Your task to perform on an android device: clear history in the chrome app Image 0: 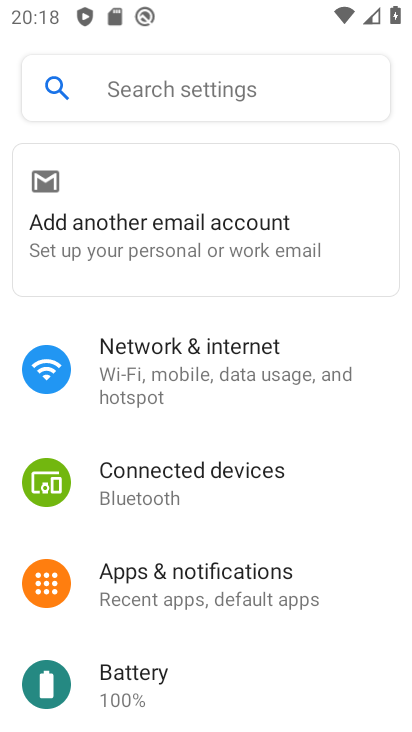
Step 0: click (347, 332)
Your task to perform on an android device: clear history in the chrome app Image 1: 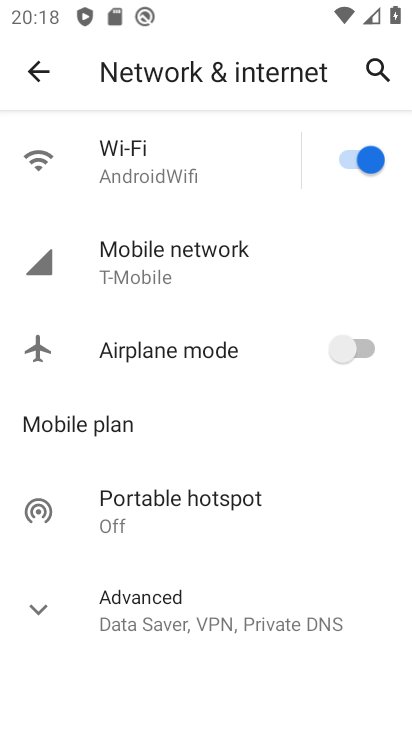
Step 1: drag from (360, 654) to (379, 283)
Your task to perform on an android device: clear history in the chrome app Image 2: 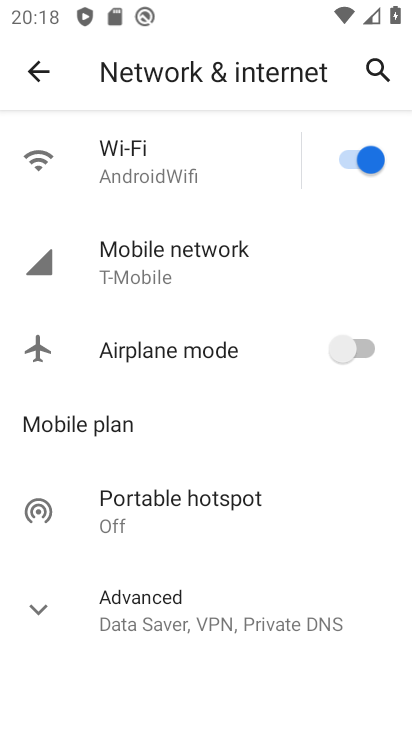
Step 2: click (27, 68)
Your task to perform on an android device: clear history in the chrome app Image 3: 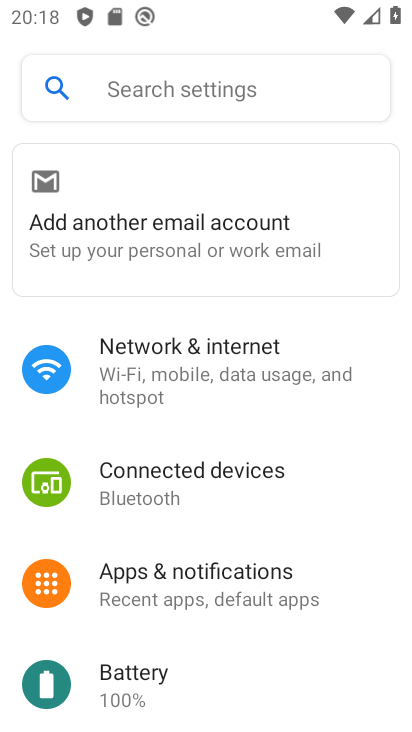
Step 3: drag from (367, 472) to (363, 288)
Your task to perform on an android device: clear history in the chrome app Image 4: 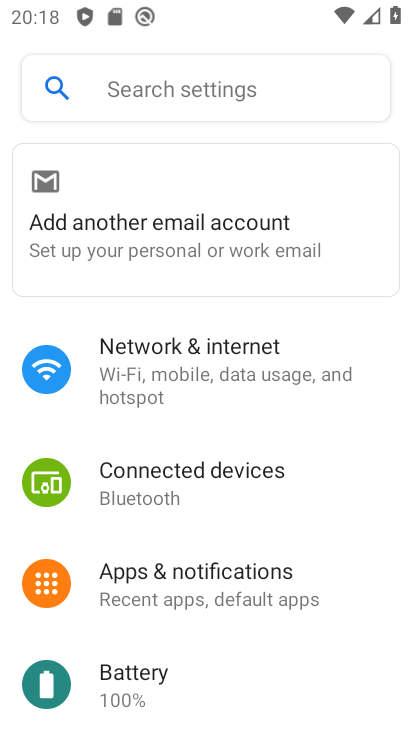
Step 4: press home button
Your task to perform on an android device: clear history in the chrome app Image 5: 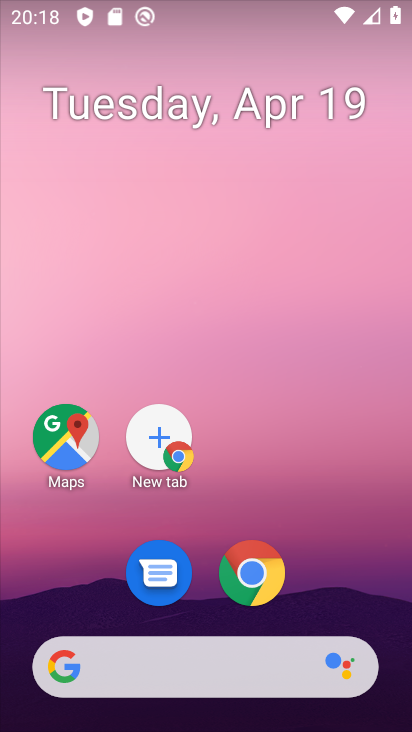
Step 5: click (250, 587)
Your task to perform on an android device: clear history in the chrome app Image 6: 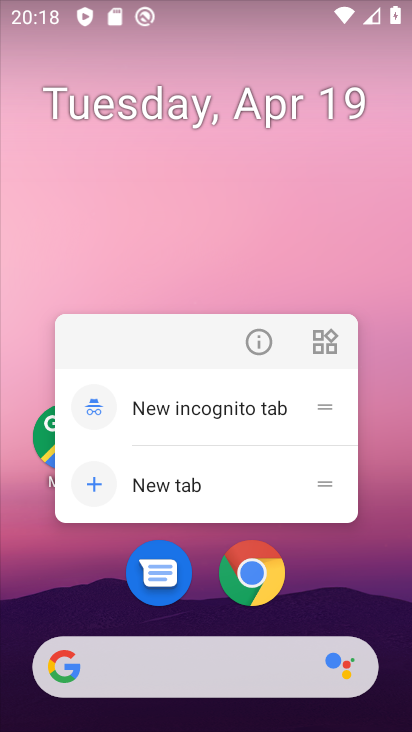
Step 6: click (250, 587)
Your task to perform on an android device: clear history in the chrome app Image 7: 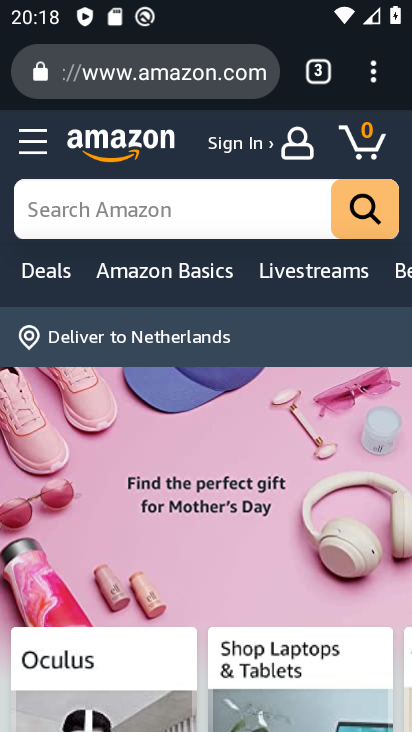
Step 7: click (371, 69)
Your task to perform on an android device: clear history in the chrome app Image 8: 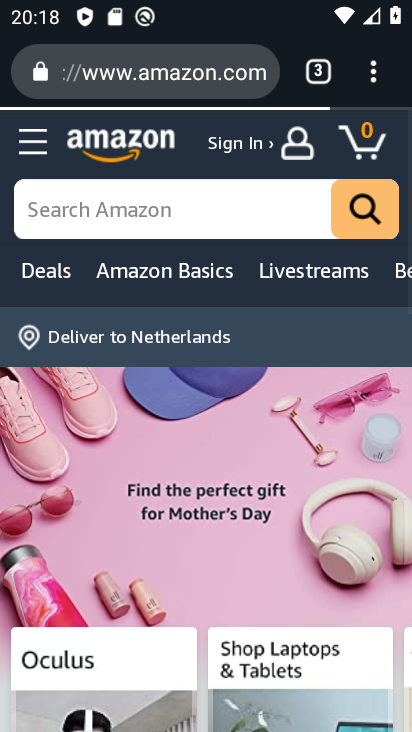
Step 8: click (371, 69)
Your task to perform on an android device: clear history in the chrome app Image 9: 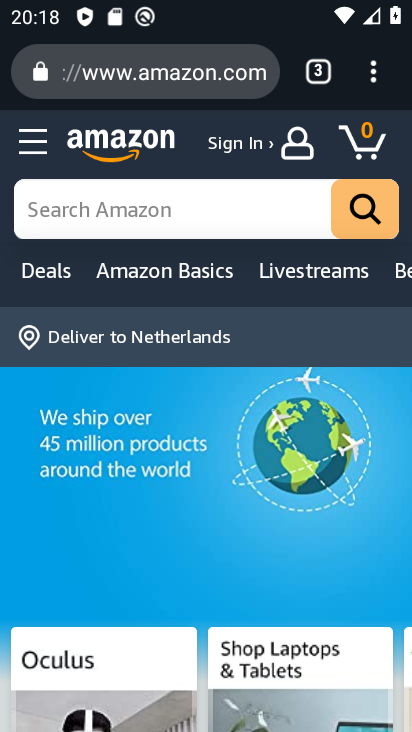
Step 9: click (373, 62)
Your task to perform on an android device: clear history in the chrome app Image 10: 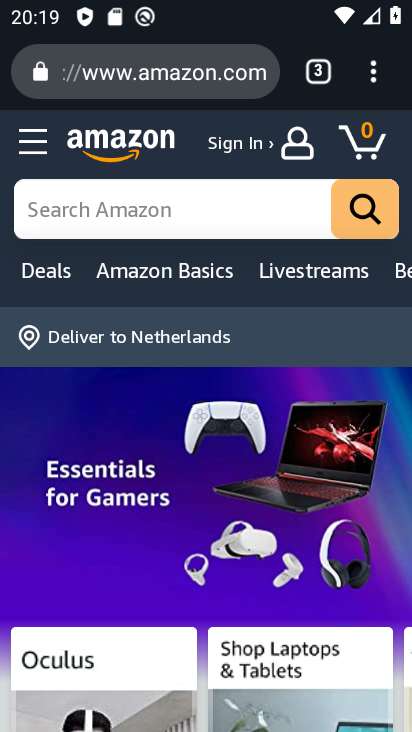
Step 10: click (372, 77)
Your task to perform on an android device: clear history in the chrome app Image 11: 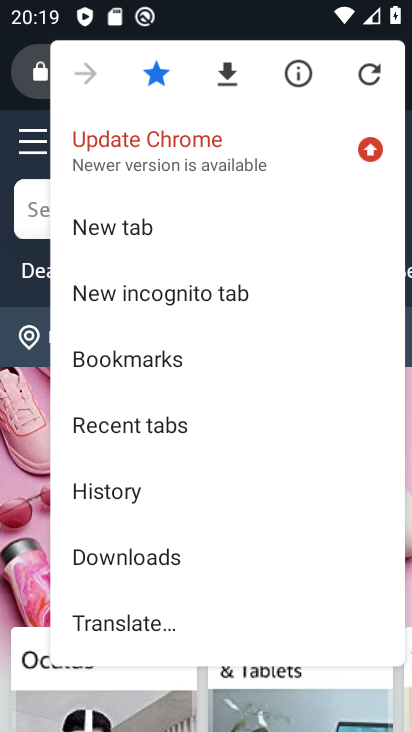
Step 11: click (108, 482)
Your task to perform on an android device: clear history in the chrome app Image 12: 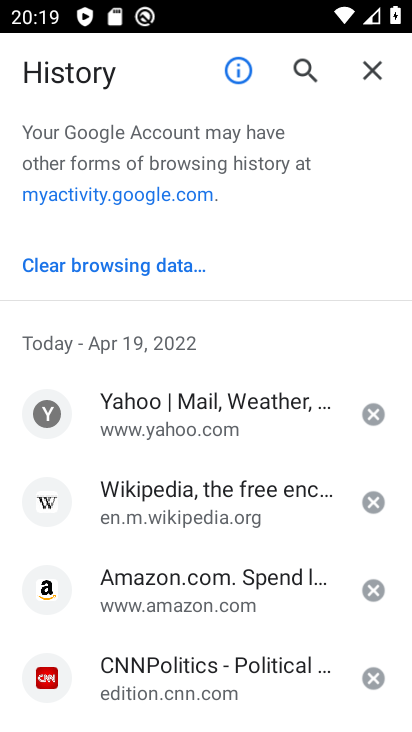
Step 12: click (101, 265)
Your task to perform on an android device: clear history in the chrome app Image 13: 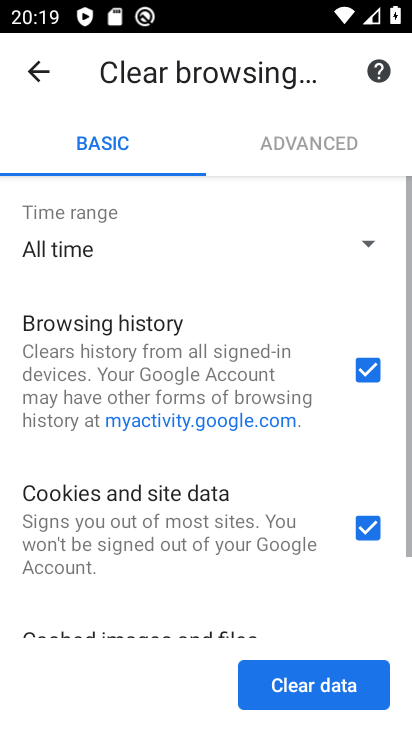
Step 13: drag from (295, 574) to (279, 232)
Your task to perform on an android device: clear history in the chrome app Image 14: 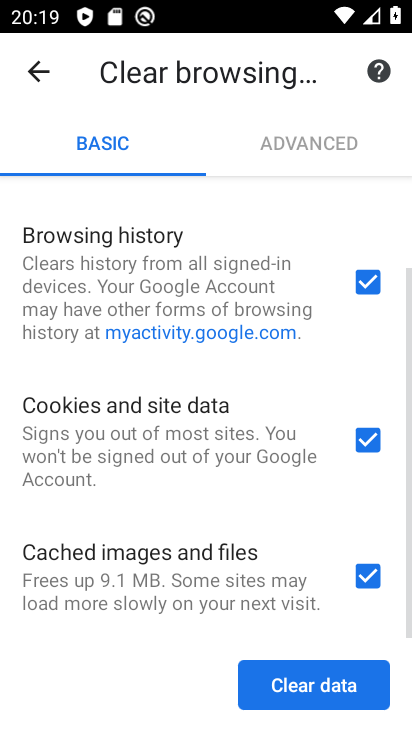
Step 14: click (288, 680)
Your task to perform on an android device: clear history in the chrome app Image 15: 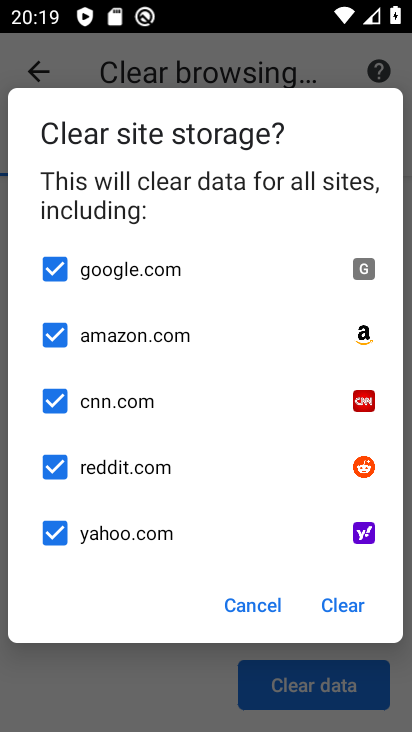
Step 15: click (325, 603)
Your task to perform on an android device: clear history in the chrome app Image 16: 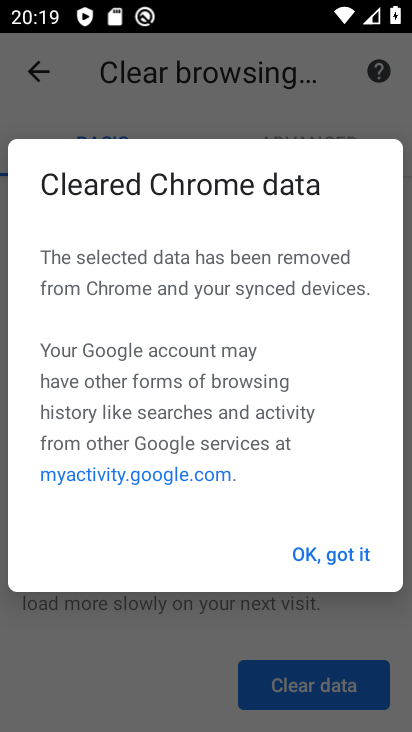
Step 16: click (329, 545)
Your task to perform on an android device: clear history in the chrome app Image 17: 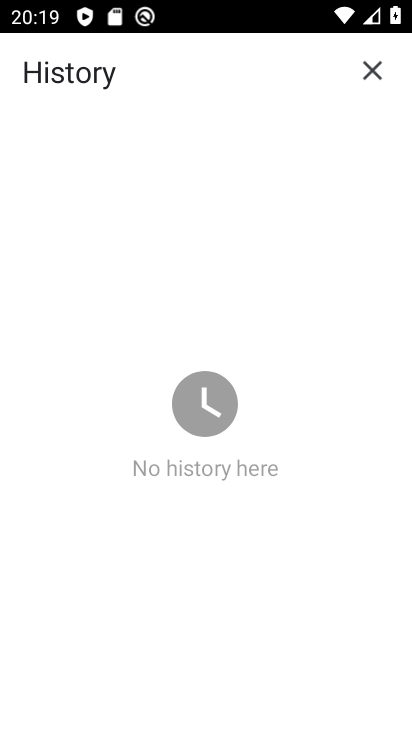
Step 17: task complete